Your task to perform on an android device: Open my contact list Image 0: 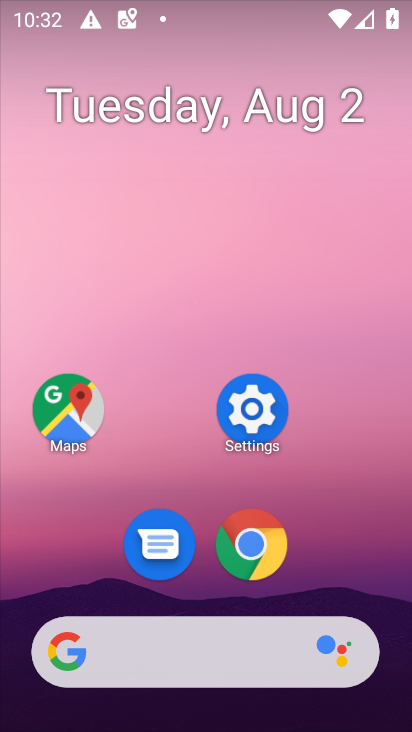
Step 0: drag from (196, 646) to (361, 10)
Your task to perform on an android device: Open my contact list Image 1: 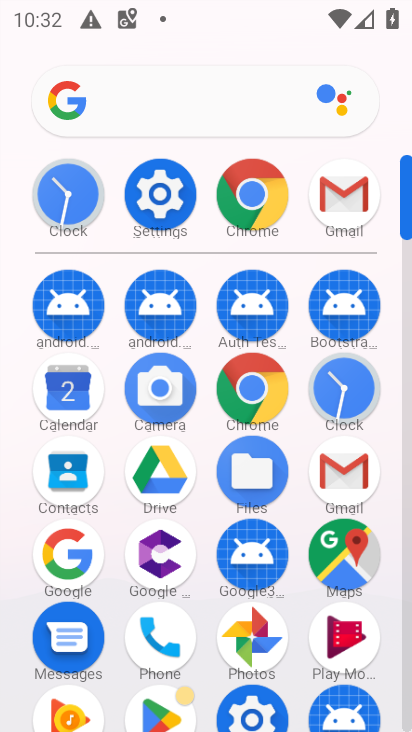
Step 1: click (73, 485)
Your task to perform on an android device: Open my contact list Image 2: 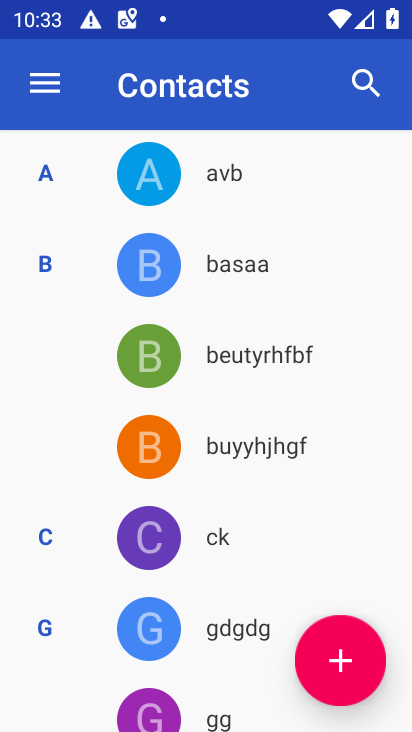
Step 2: task complete